Your task to perform on an android device: install app "Cash App" Image 0: 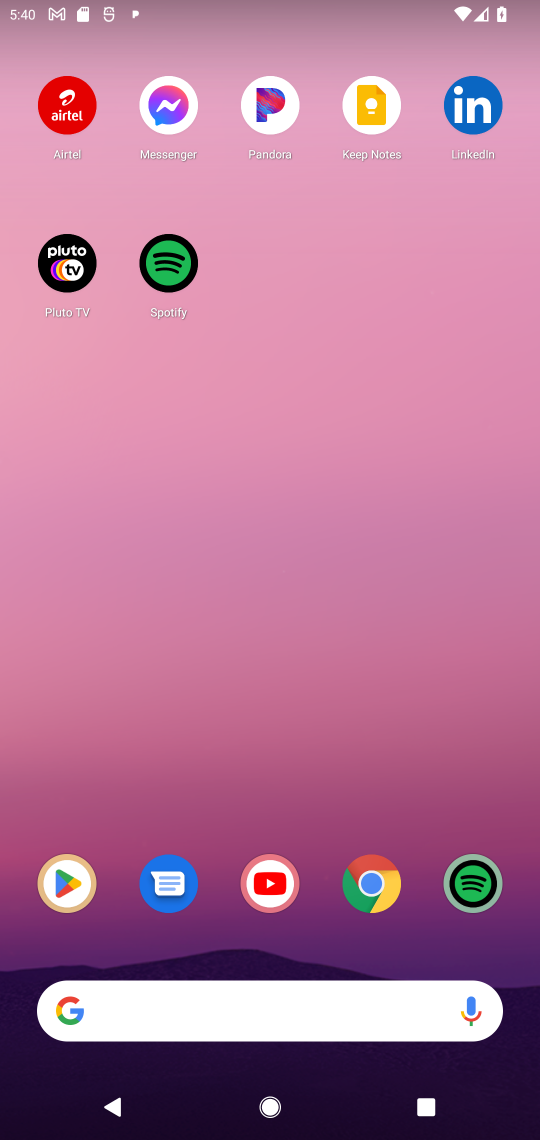
Step 0: click (60, 887)
Your task to perform on an android device: install app "Cash App" Image 1: 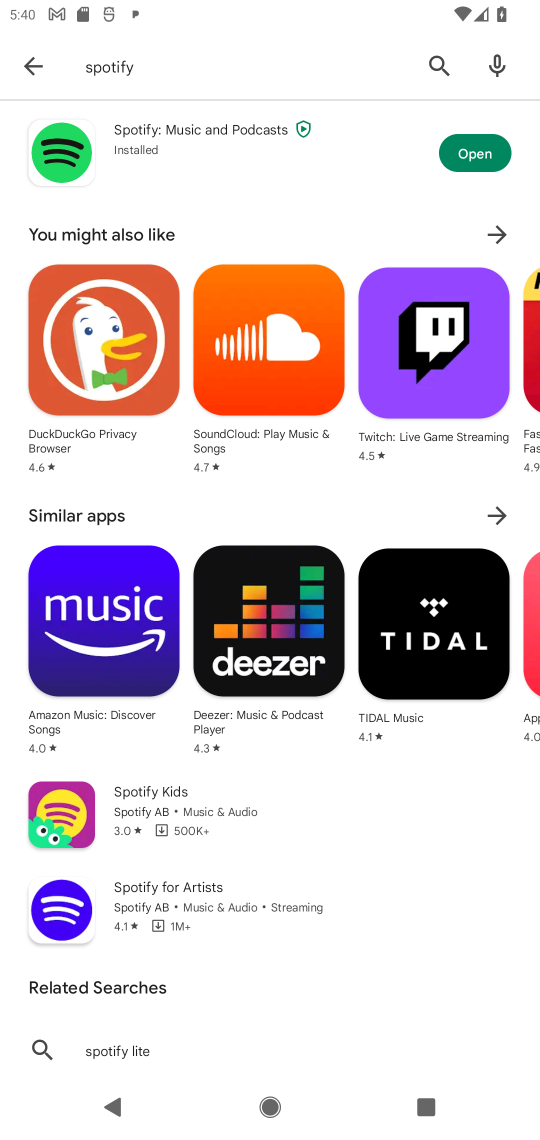
Step 1: click (16, 71)
Your task to perform on an android device: install app "Cash App" Image 2: 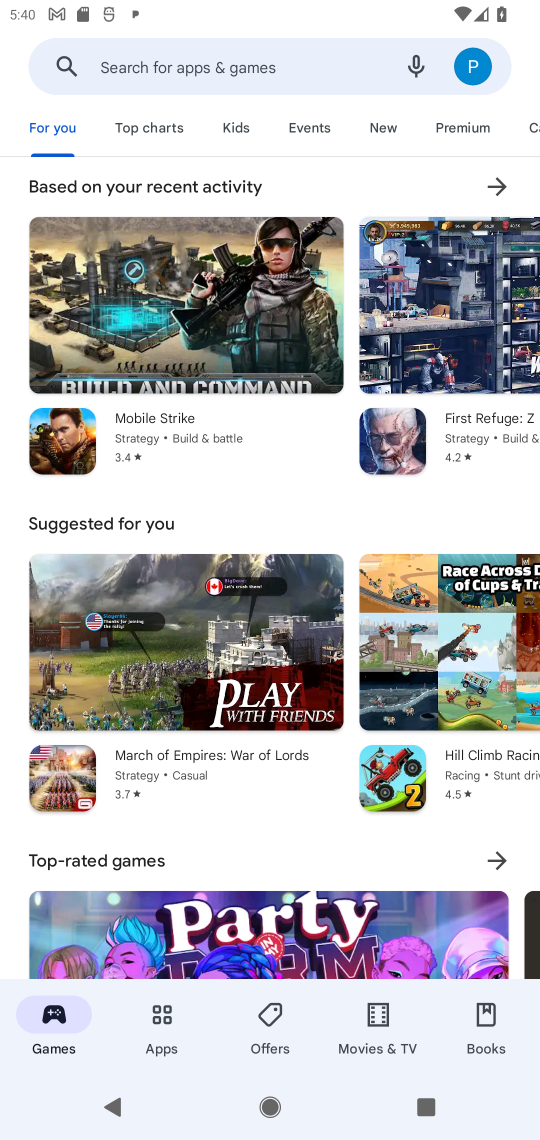
Step 2: type "Cash App"
Your task to perform on an android device: install app "Cash App" Image 3: 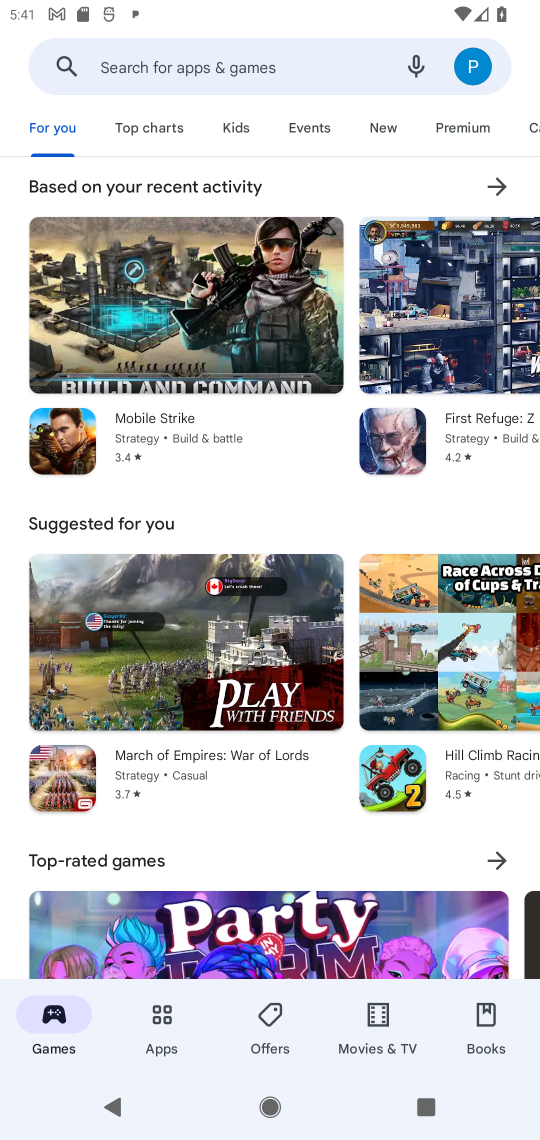
Step 3: type "Cash App"
Your task to perform on an android device: install app "Cash App" Image 4: 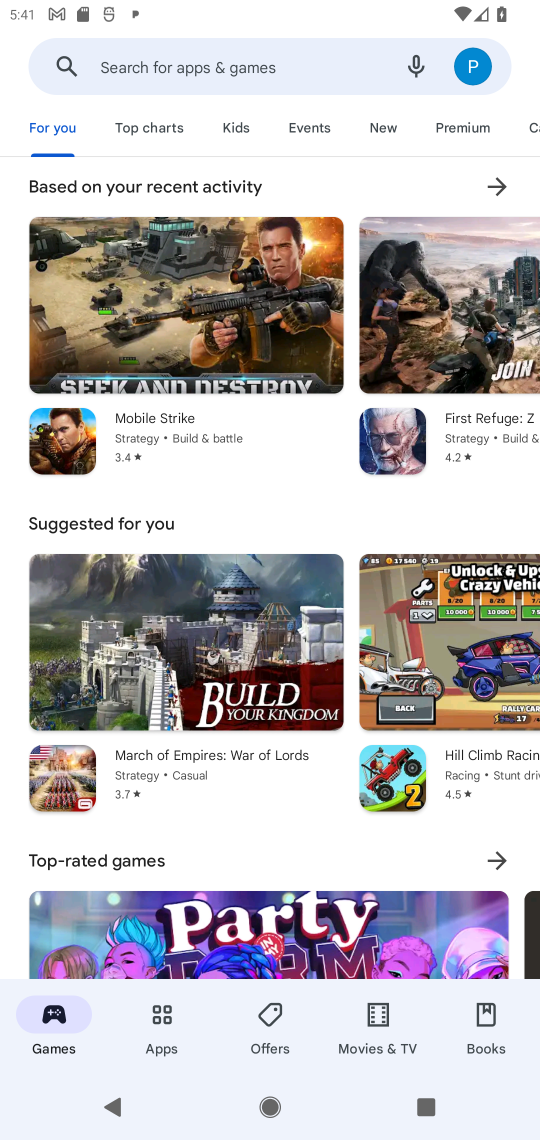
Step 4: click (221, 46)
Your task to perform on an android device: install app "Cash App" Image 5: 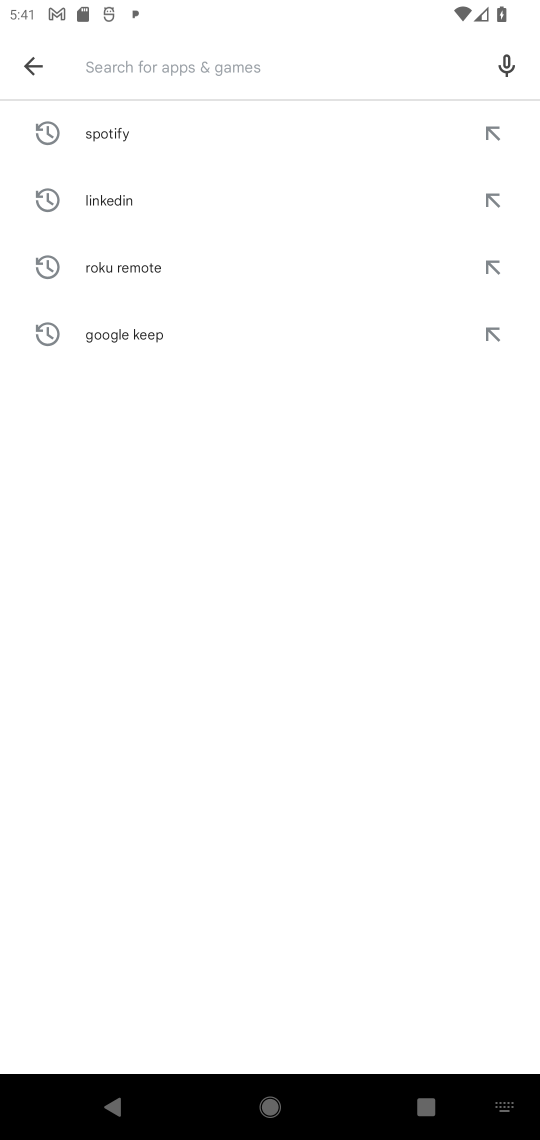
Step 5: type "Cash App"
Your task to perform on an android device: install app "Cash App" Image 6: 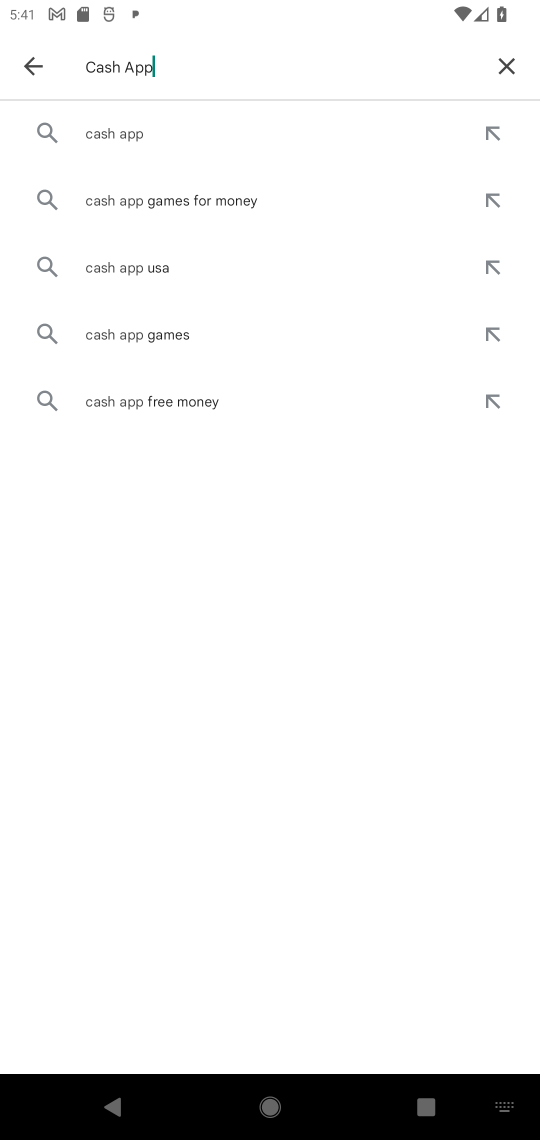
Step 6: click (105, 135)
Your task to perform on an android device: install app "Cash App" Image 7: 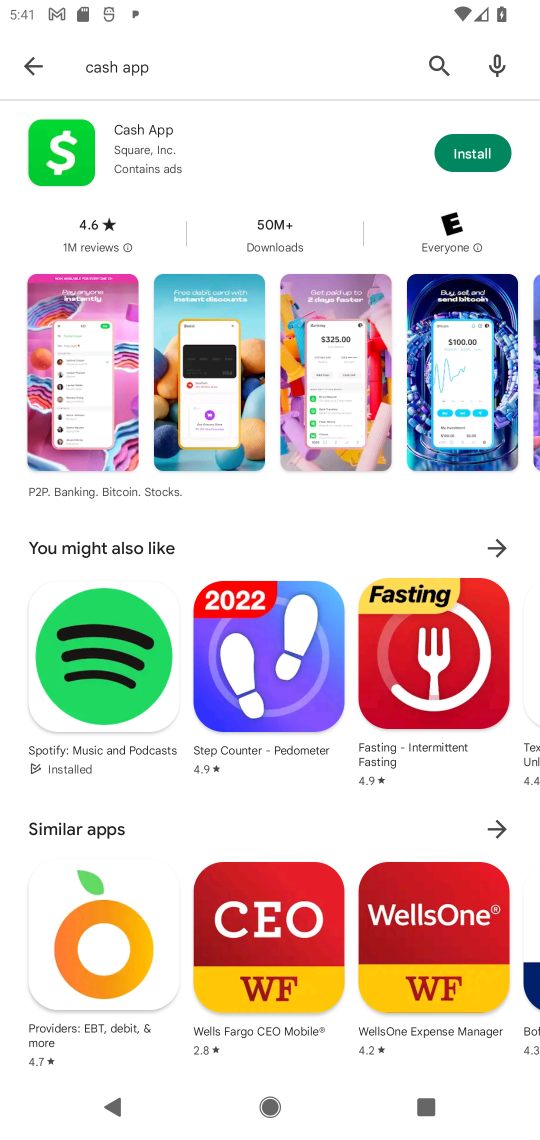
Step 7: click (468, 154)
Your task to perform on an android device: install app "Cash App" Image 8: 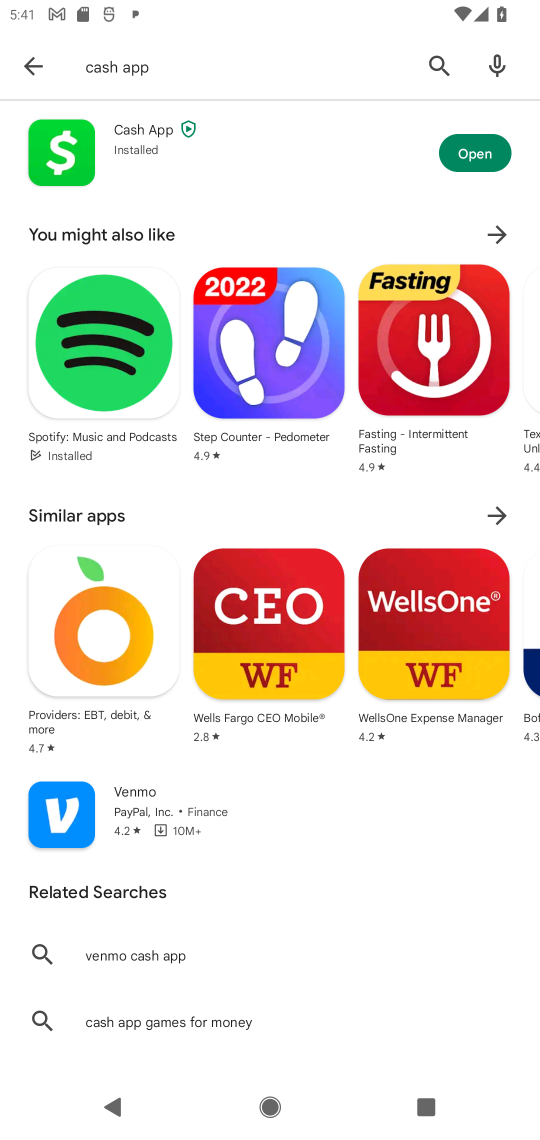
Step 8: click (475, 156)
Your task to perform on an android device: install app "Cash App" Image 9: 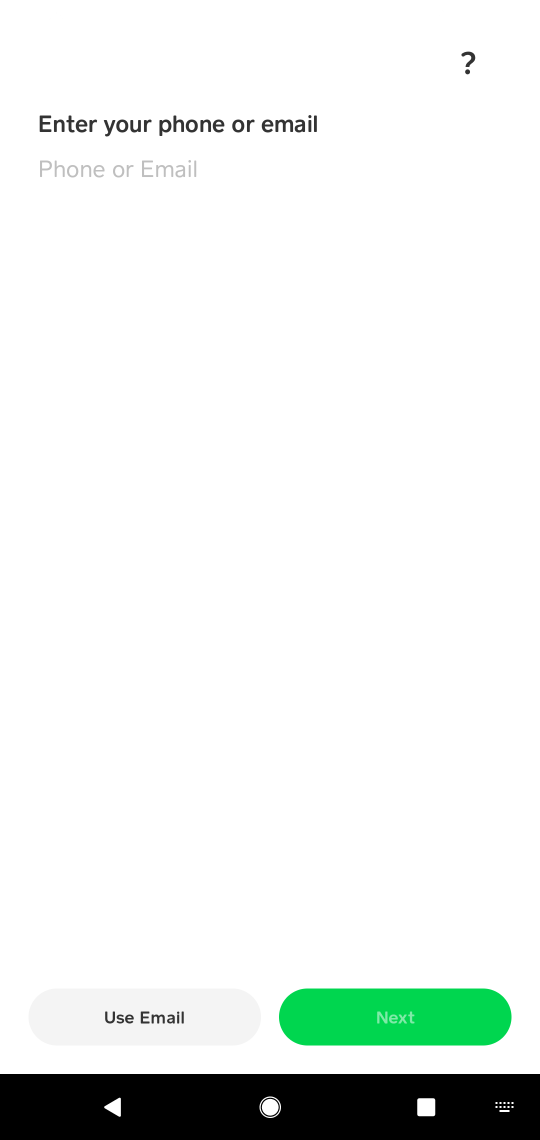
Step 9: task complete